Your task to perform on an android device: What is the recent news? Image 0: 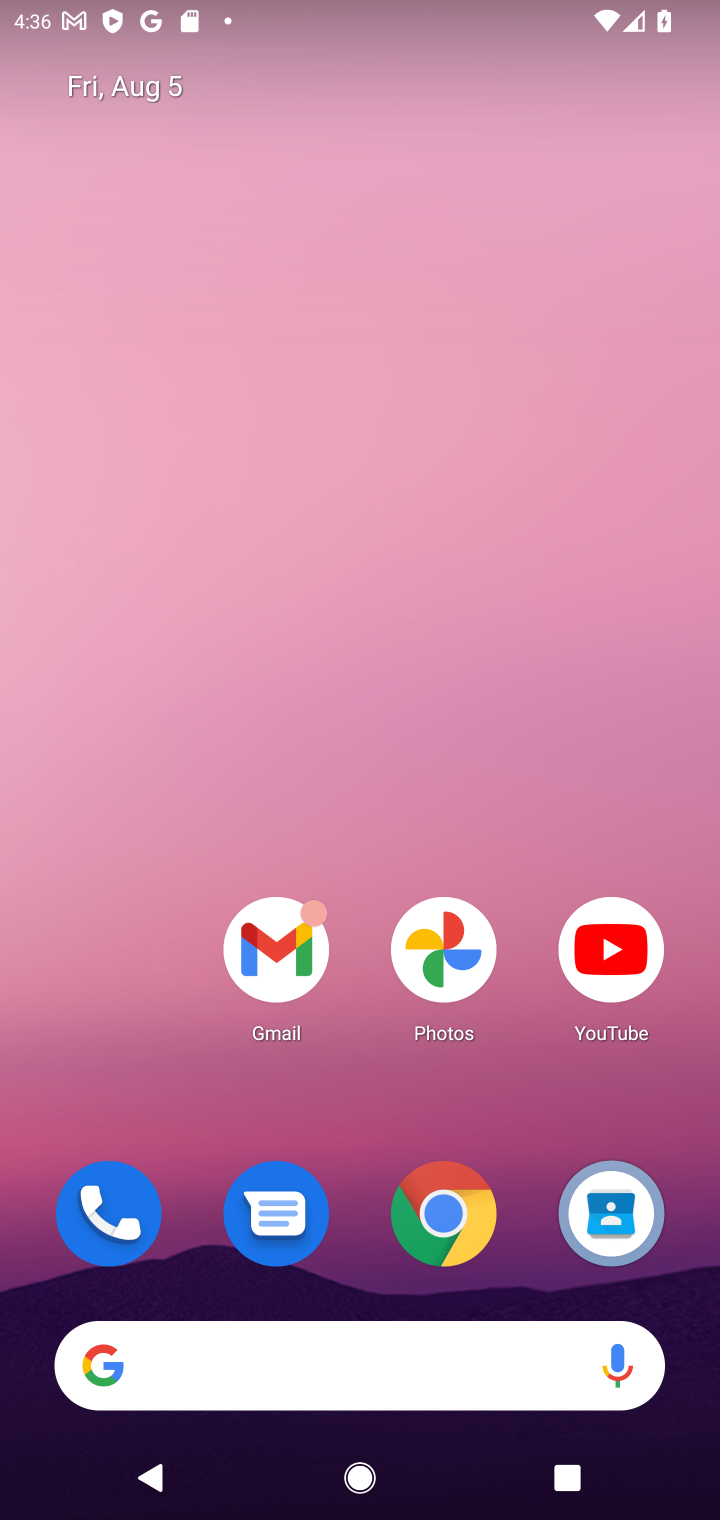
Step 0: drag from (521, 1292) to (387, 244)
Your task to perform on an android device: What is the recent news? Image 1: 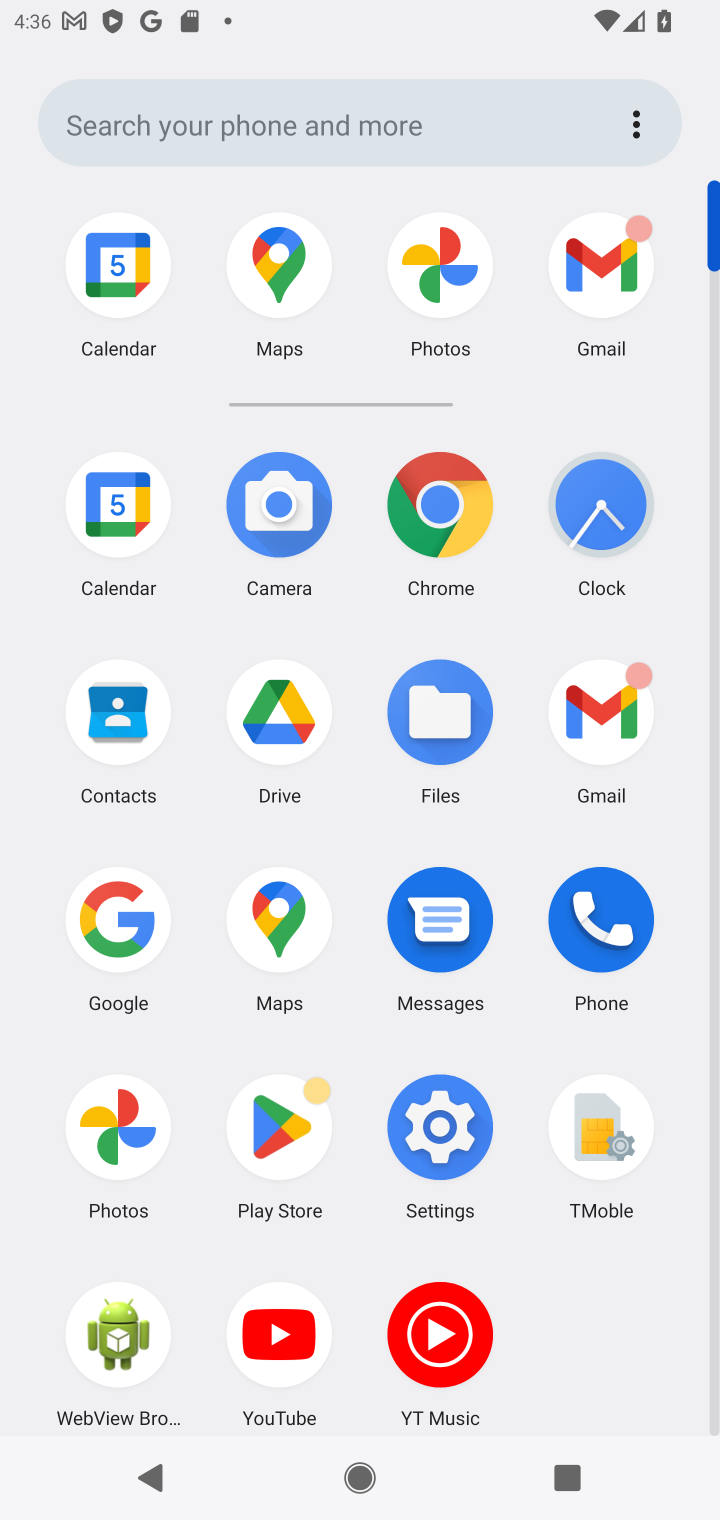
Step 1: click (381, 139)
Your task to perform on an android device: What is the recent news? Image 2: 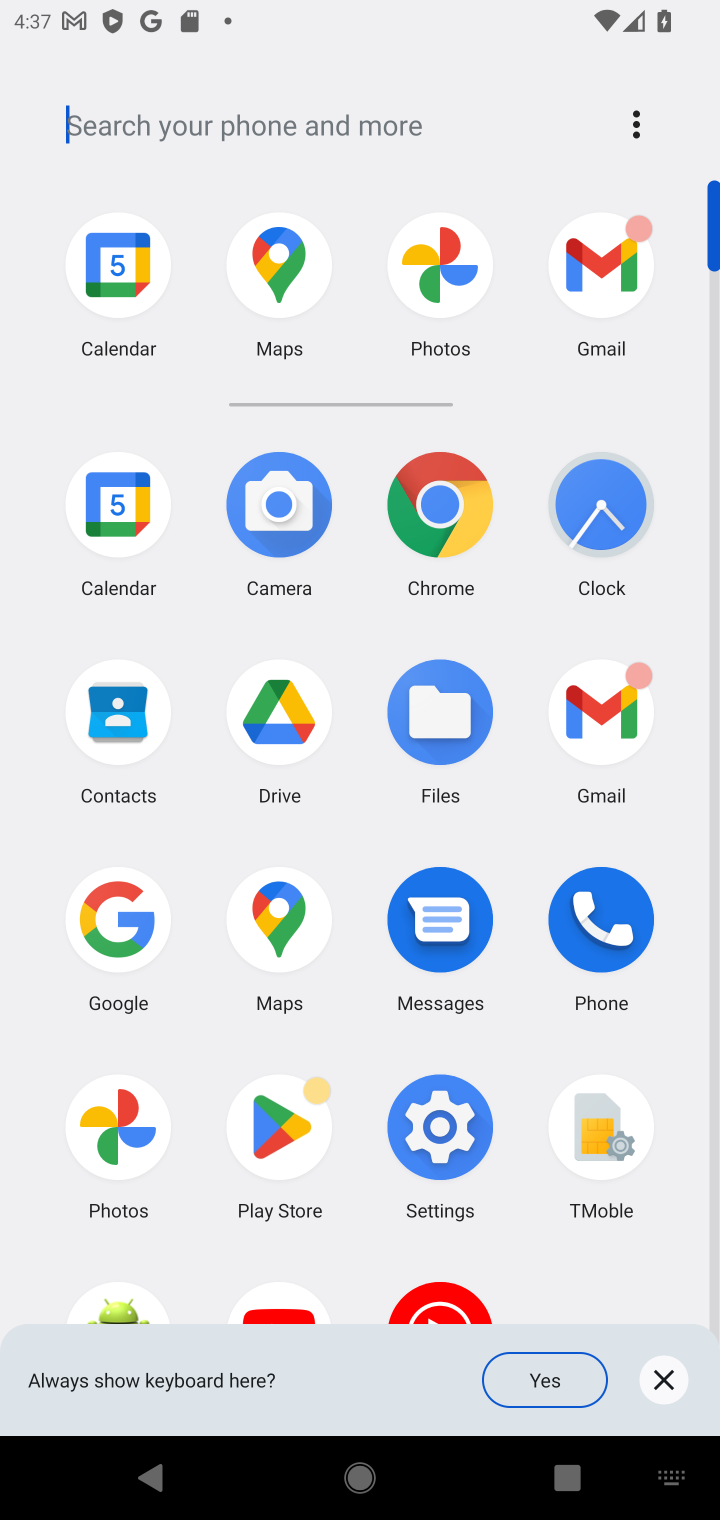
Step 2: type "resent"
Your task to perform on an android device: What is the recent news? Image 3: 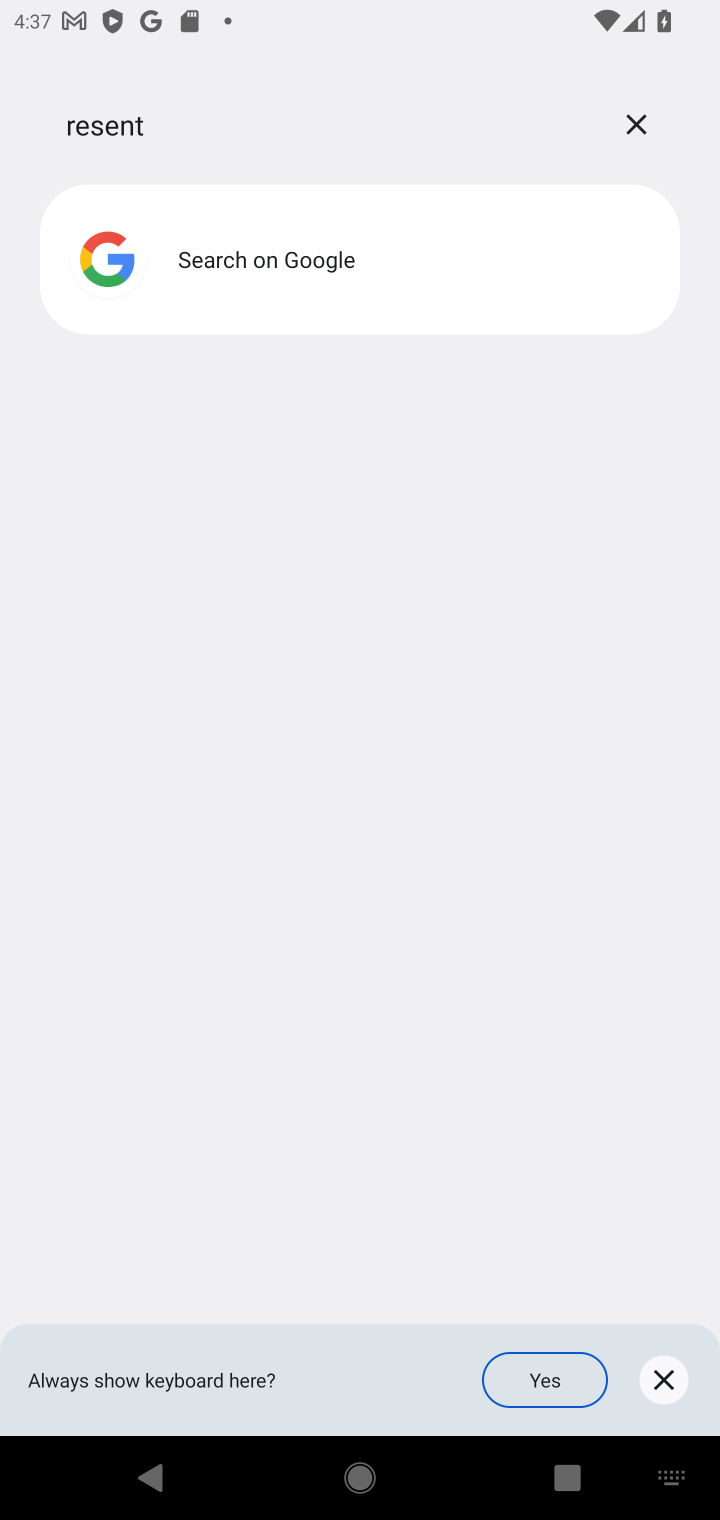
Step 3: task complete